Your task to perform on an android device: View the shopping cart on amazon. Search for "corsair k70" on amazon, select the first entry, add it to the cart, then select checkout. Image 0: 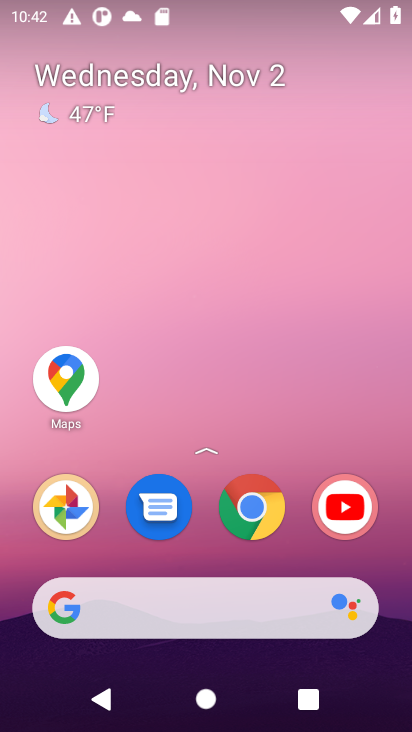
Step 0: press home button
Your task to perform on an android device: View the shopping cart on amazon. Search for "corsair k70" on amazon, select the first entry, add it to the cart, then select checkout. Image 1: 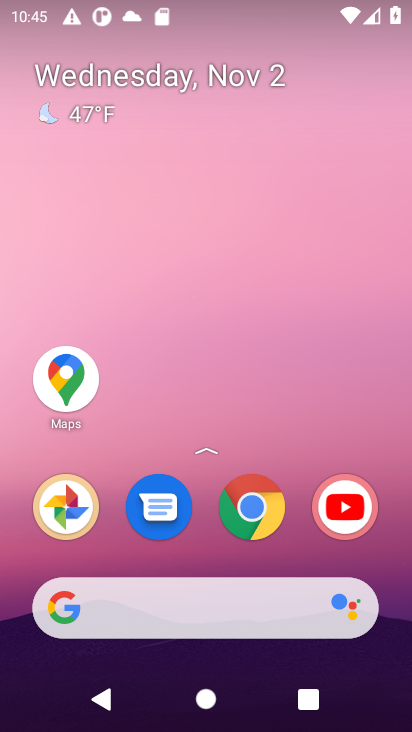
Step 1: click (138, 626)
Your task to perform on an android device: View the shopping cart on amazon. Search for "corsair k70" on amazon, select the first entry, add it to the cart, then select checkout. Image 2: 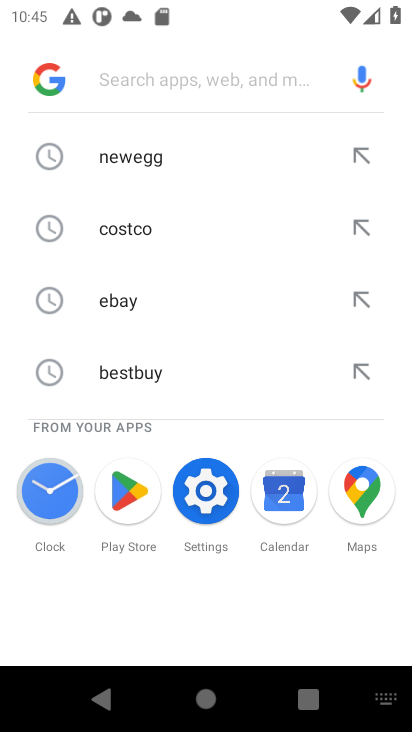
Step 2: type "amazon"
Your task to perform on an android device: View the shopping cart on amazon. Search for "corsair k70" on amazon, select the first entry, add it to the cart, then select checkout. Image 3: 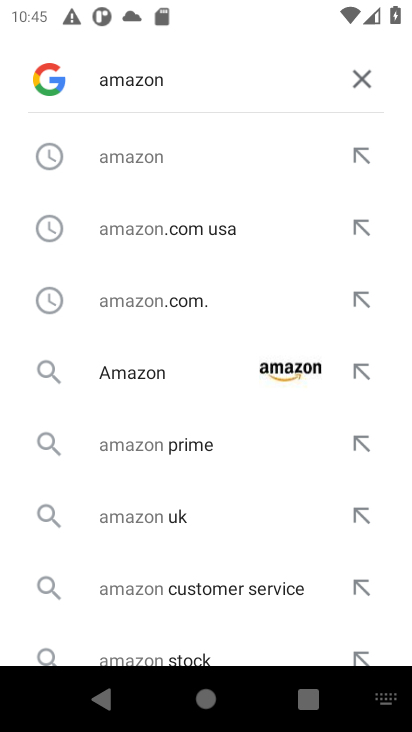
Step 3: click (178, 367)
Your task to perform on an android device: View the shopping cart on amazon. Search for "corsair k70" on amazon, select the first entry, add it to the cart, then select checkout. Image 4: 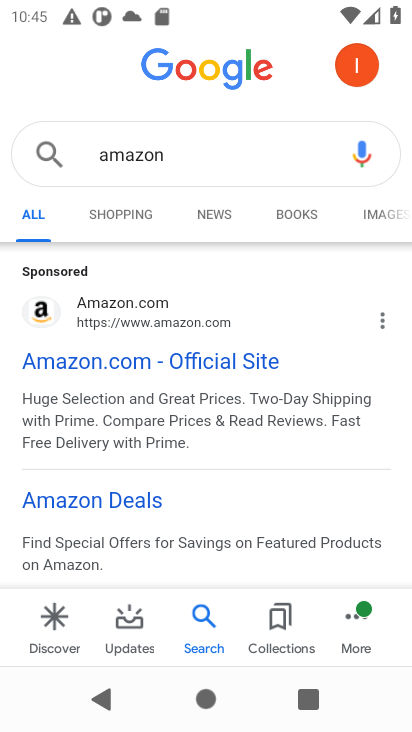
Step 4: click (147, 355)
Your task to perform on an android device: View the shopping cart on amazon. Search for "corsair k70" on amazon, select the first entry, add it to the cart, then select checkout. Image 5: 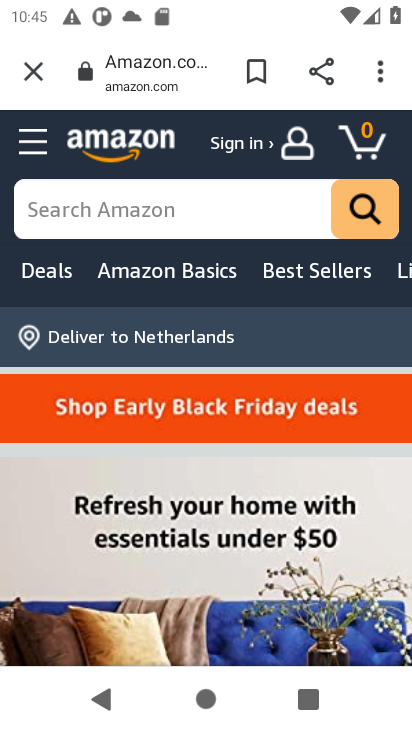
Step 5: task complete